Your task to perform on an android device: open a bookmark in the chrome app Image 0: 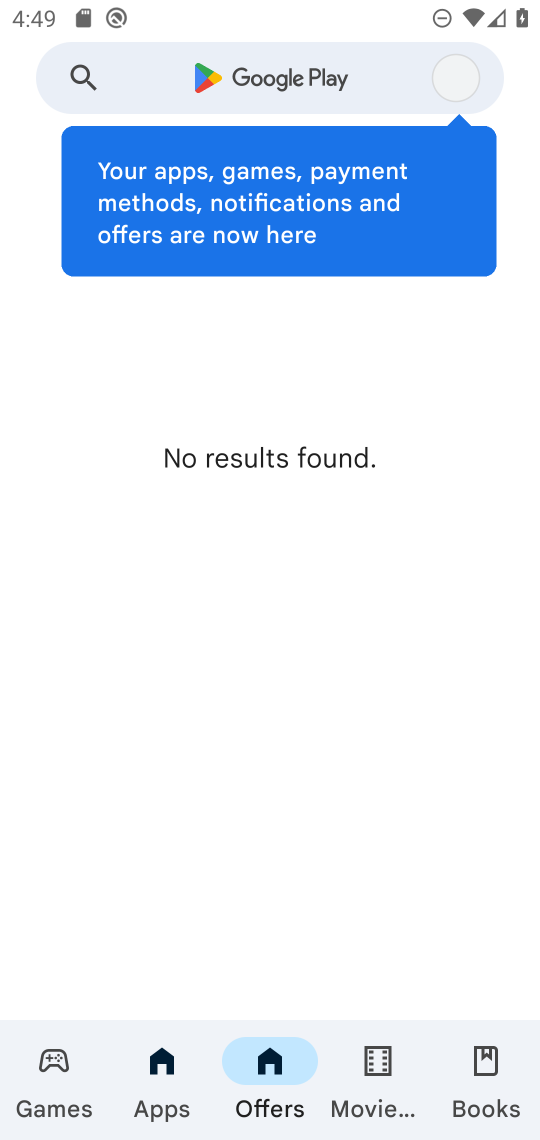
Step 0: press home button
Your task to perform on an android device: open a bookmark in the chrome app Image 1: 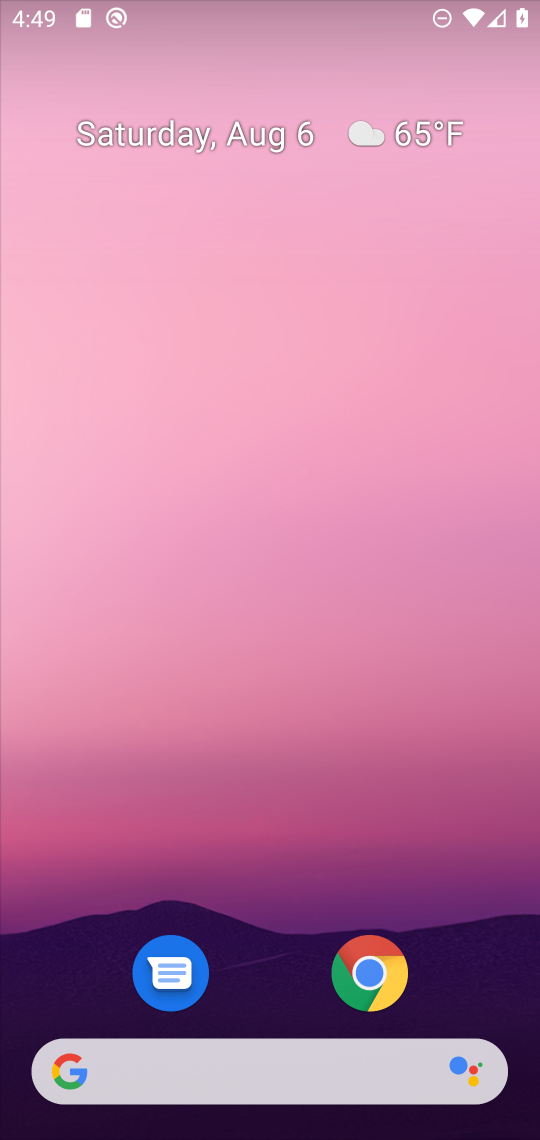
Step 1: drag from (270, 909) to (328, 103)
Your task to perform on an android device: open a bookmark in the chrome app Image 2: 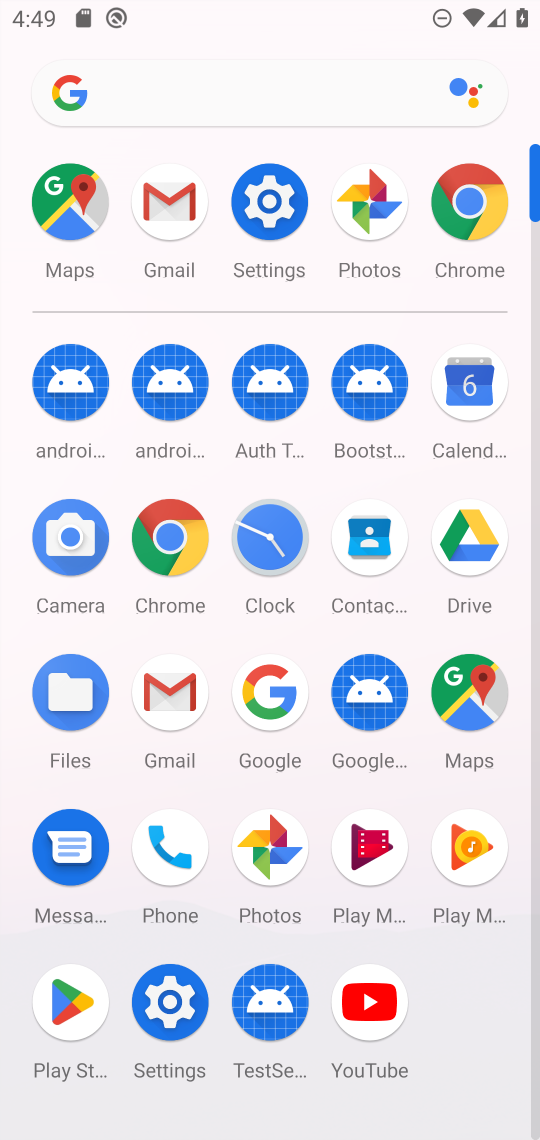
Step 2: click (180, 540)
Your task to perform on an android device: open a bookmark in the chrome app Image 3: 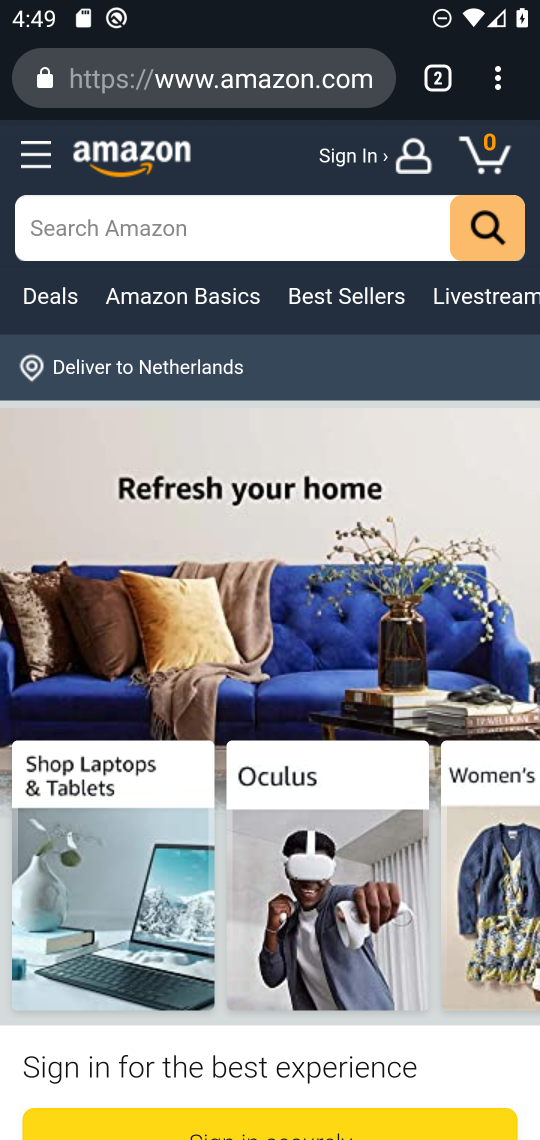
Step 3: drag from (489, 61) to (287, 289)
Your task to perform on an android device: open a bookmark in the chrome app Image 4: 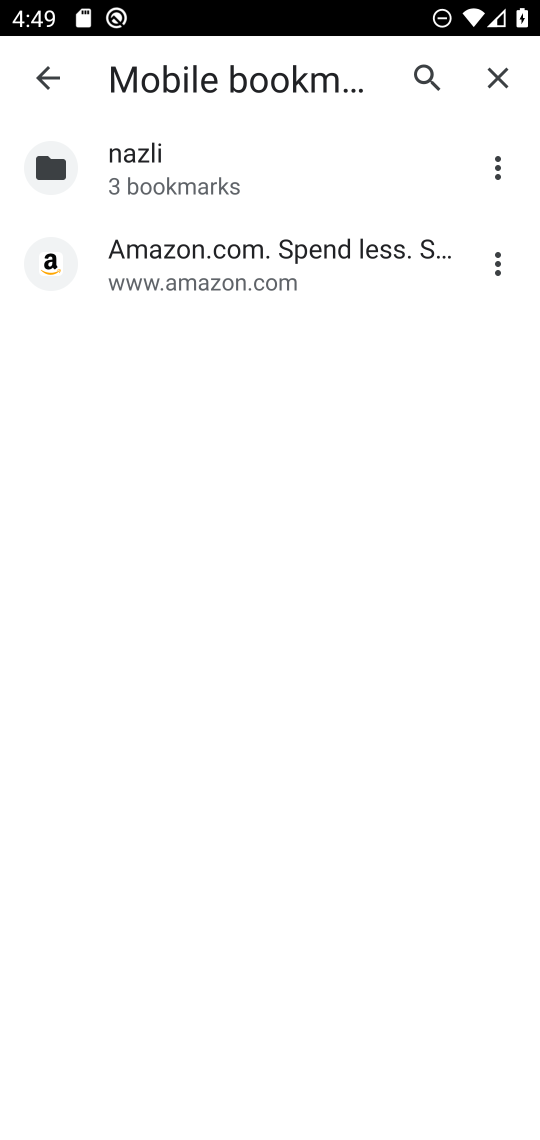
Step 4: click (217, 268)
Your task to perform on an android device: open a bookmark in the chrome app Image 5: 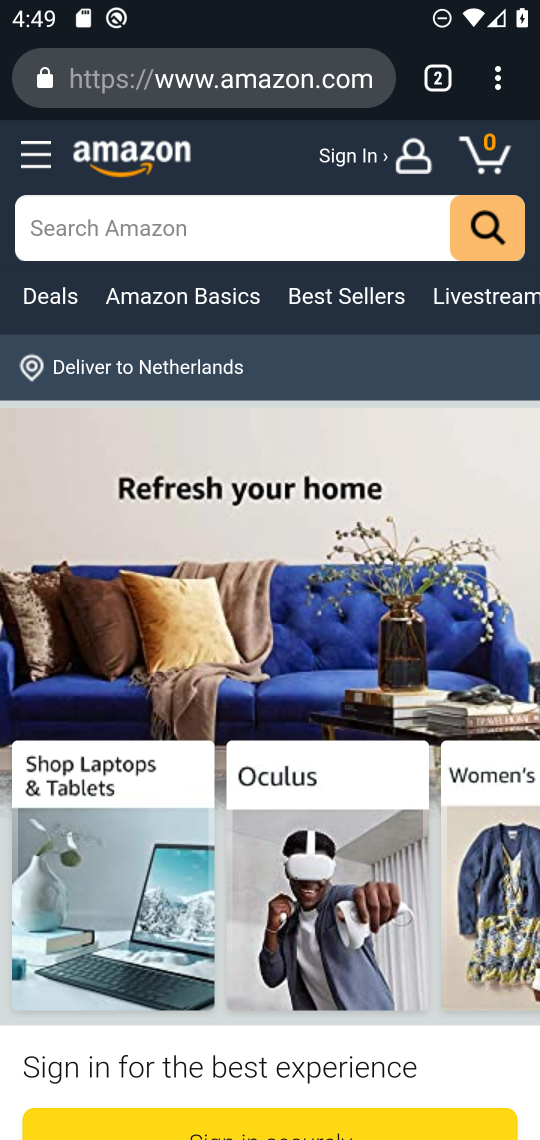
Step 5: task complete